Your task to perform on an android device: Empty the shopping cart on walmart.com. Add panasonic triple a to the cart on walmart.com Image 0: 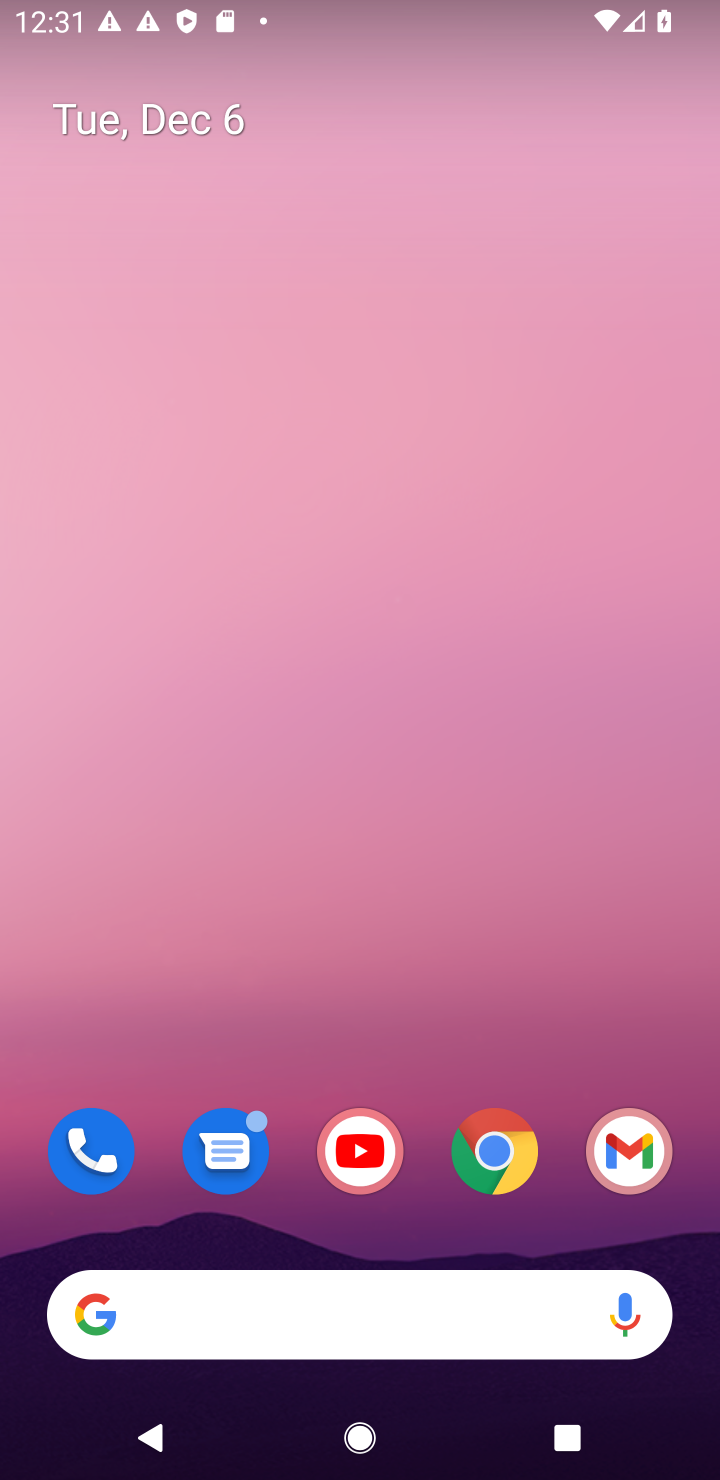
Step 0: click (483, 1159)
Your task to perform on an android device: Empty the shopping cart on walmart.com. Add panasonic triple a to the cart on walmart.com Image 1: 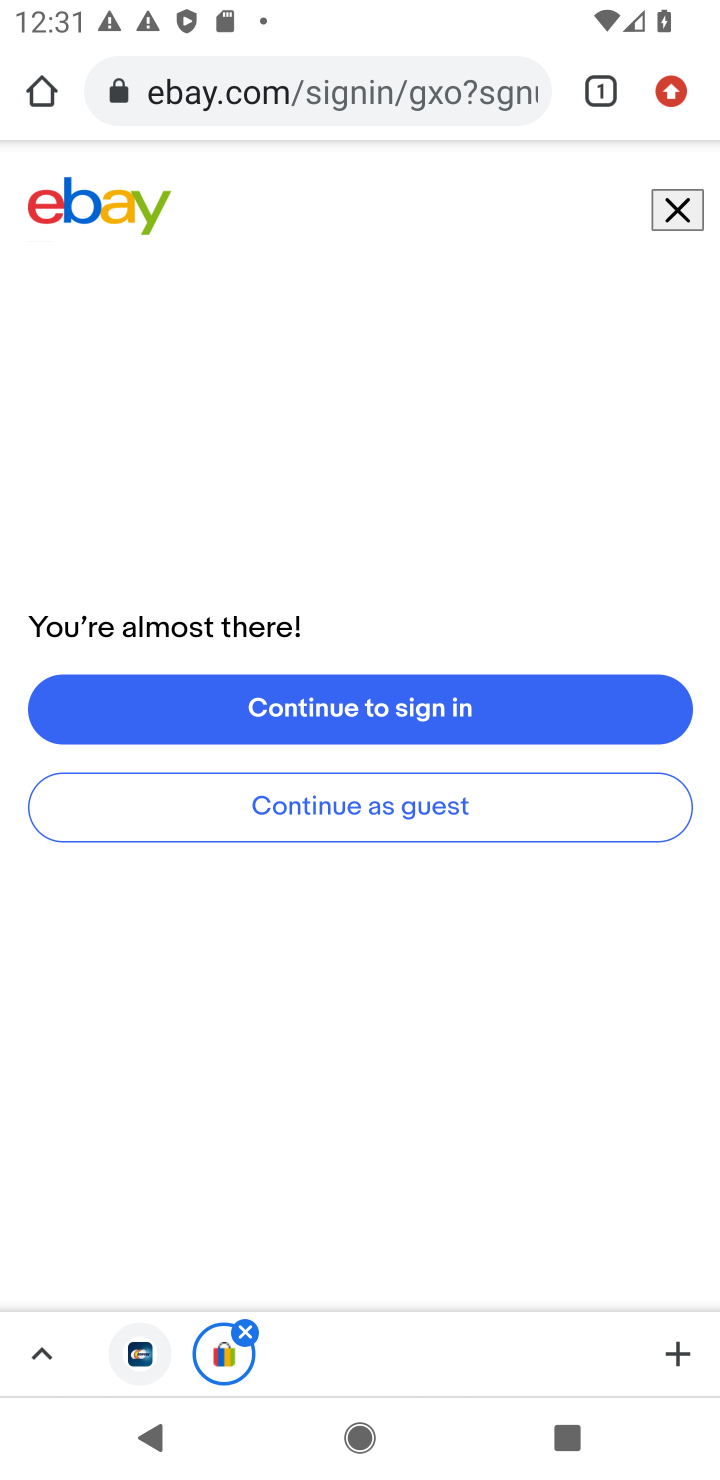
Step 1: click (254, 109)
Your task to perform on an android device: Empty the shopping cart on walmart.com. Add panasonic triple a to the cart on walmart.com Image 2: 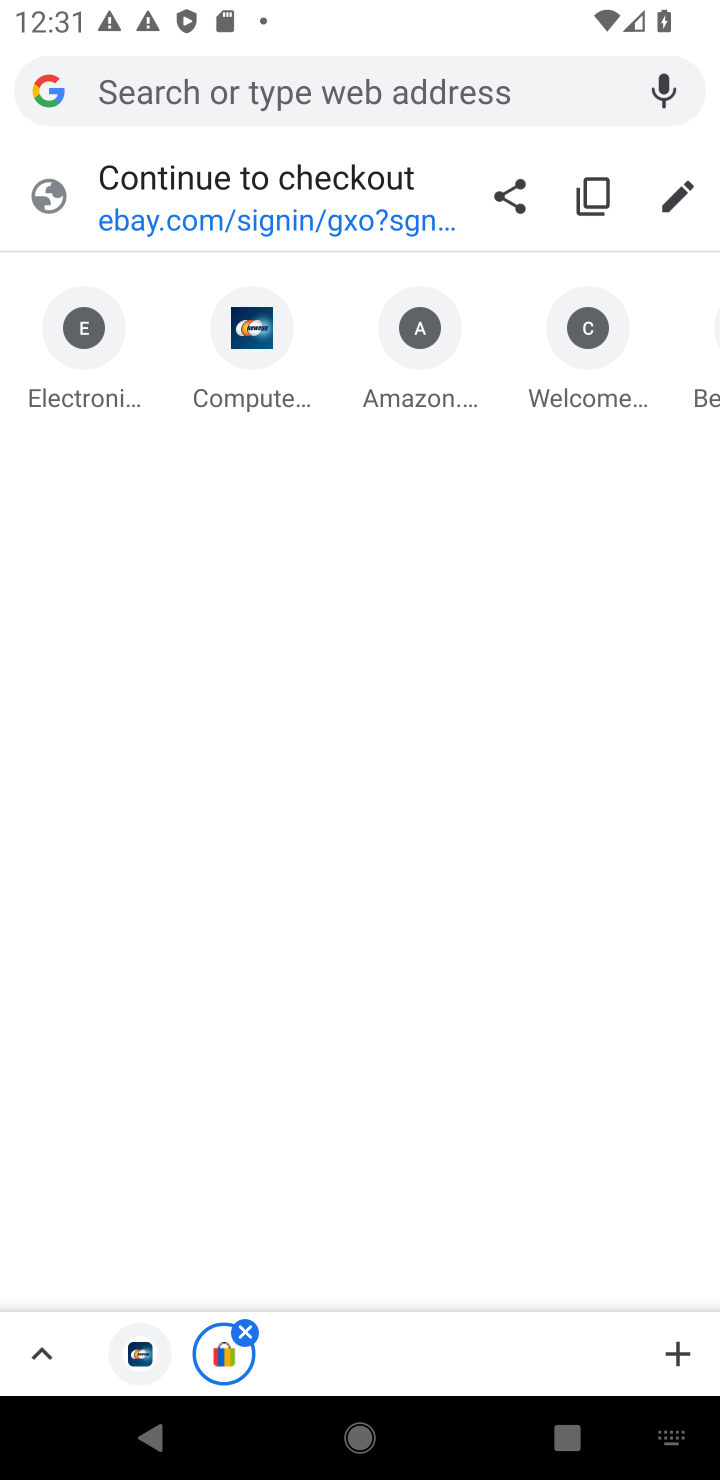
Step 2: type "walmart.com"
Your task to perform on an android device: Empty the shopping cart on walmart.com. Add panasonic triple a to the cart on walmart.com Image 3: 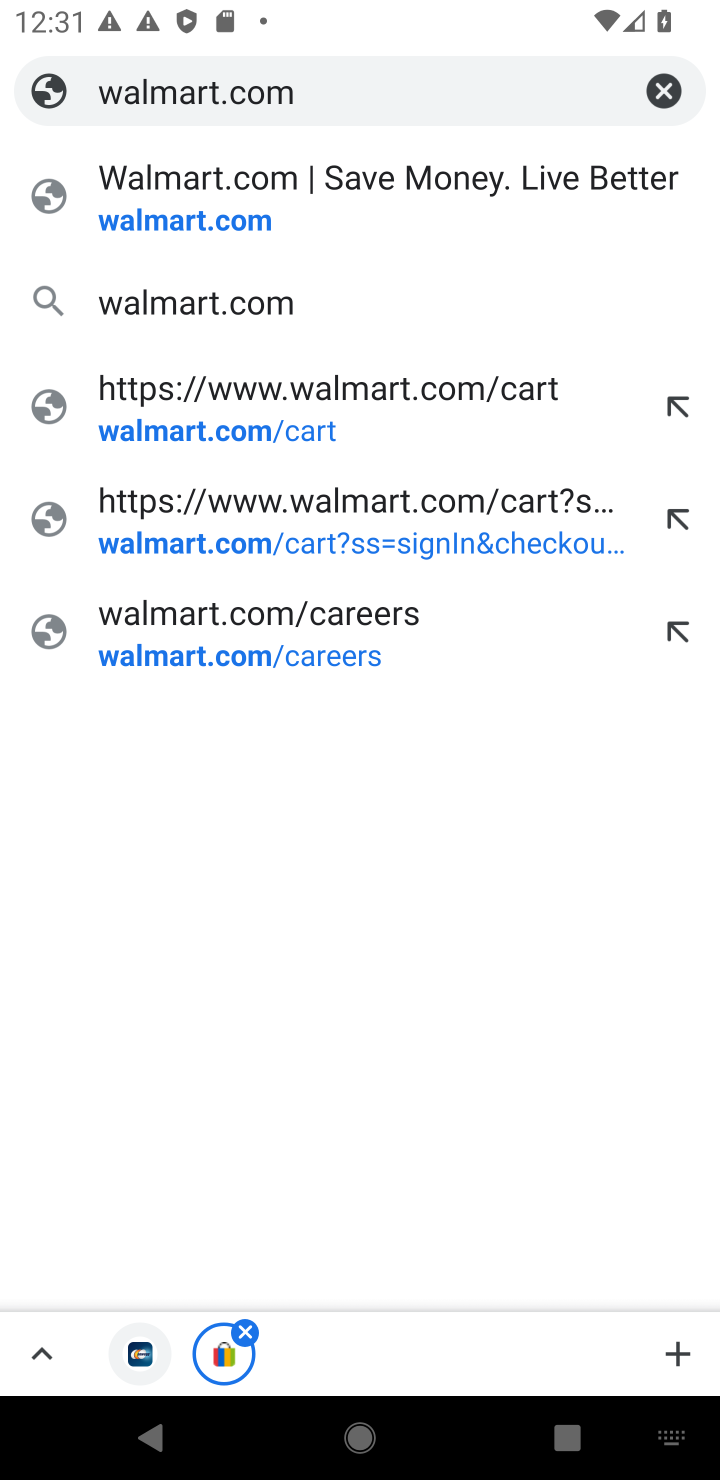
Step 3: click (194, 239)
Your task to perform on an android device: Empty the shopping cart on walmart.com. Add panasonic triple a to the cart on walmart.com Image 4: 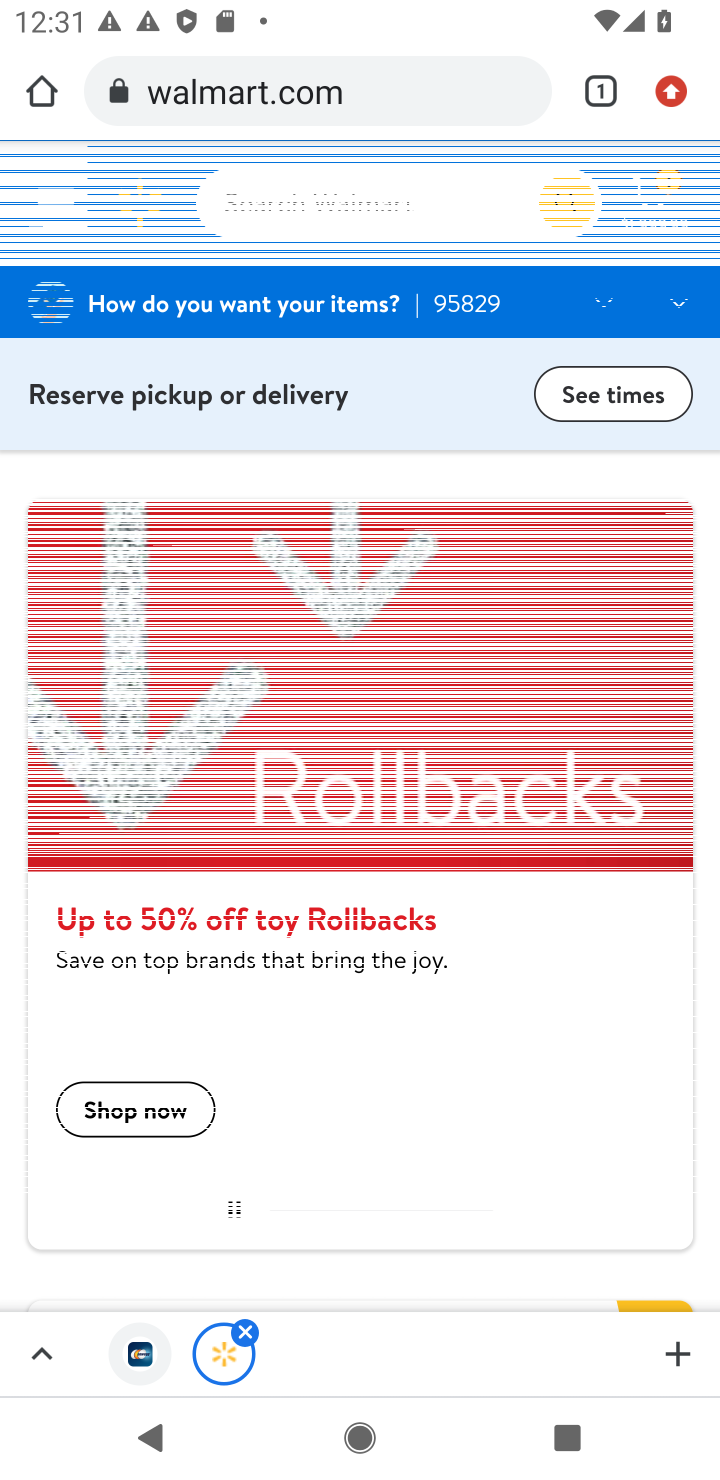
Step 4: click (650, 195)
Your task to perform on an android device: Empty the shopping cart on walmart.com. Add panasonic triple a to the cart on walmart.com Image 5: 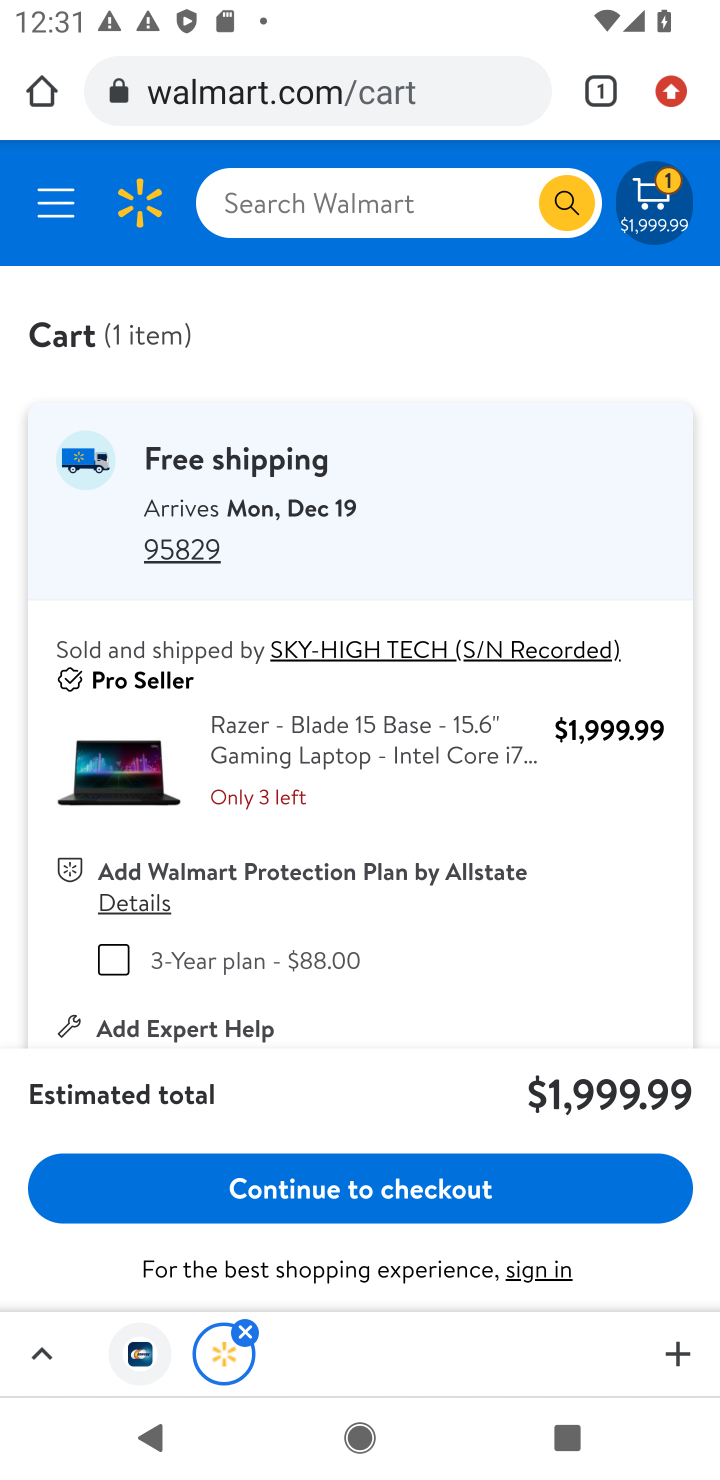
Step 5: drag from (342, 934) to (373, 426)
Your task to perform on an android device: Empty the shopping cart on walmart.com. Add panasonic triple a to the cart on walmart.com Image 6: 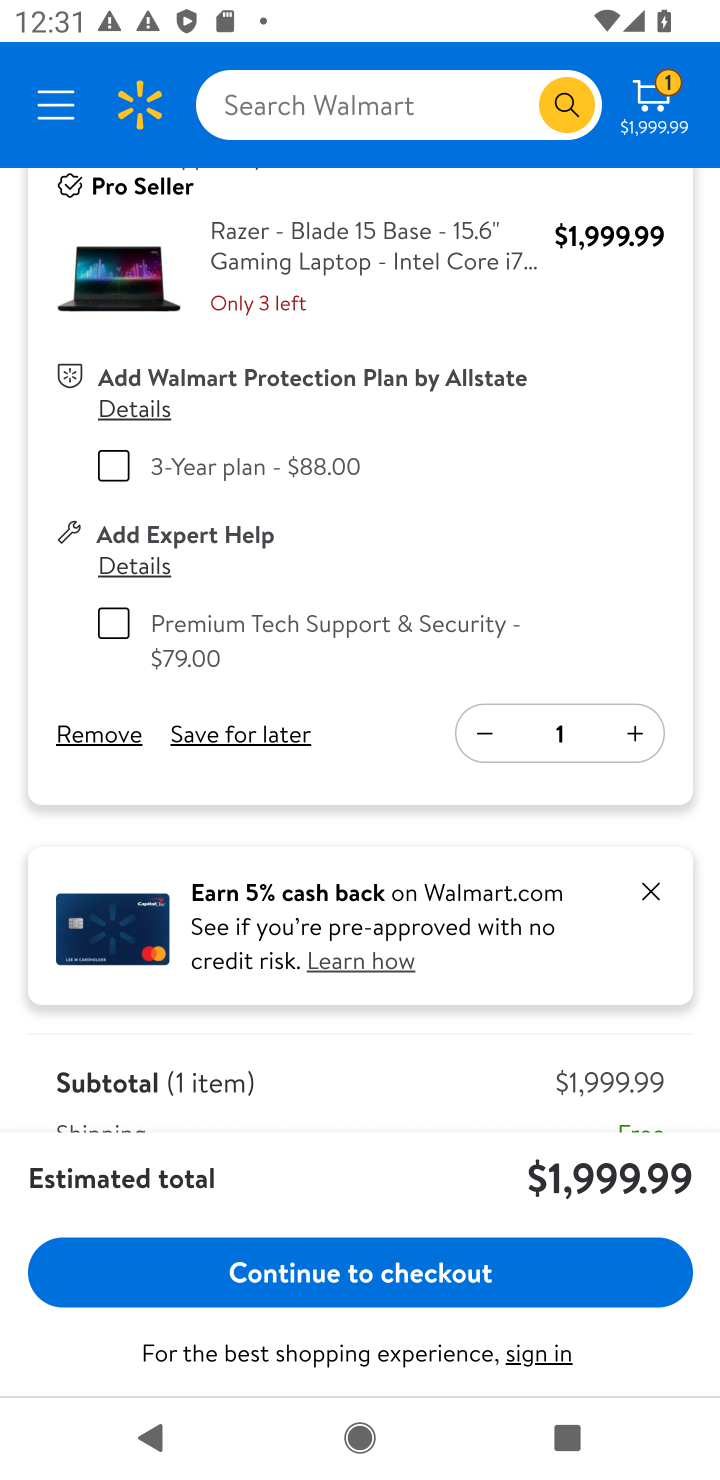
Step 6: click (99, 737)
Your task to perform on an android device: Empty the shopping cart on walmart.com. Add panasonic triple a to the cart on walmart.com Image 7: 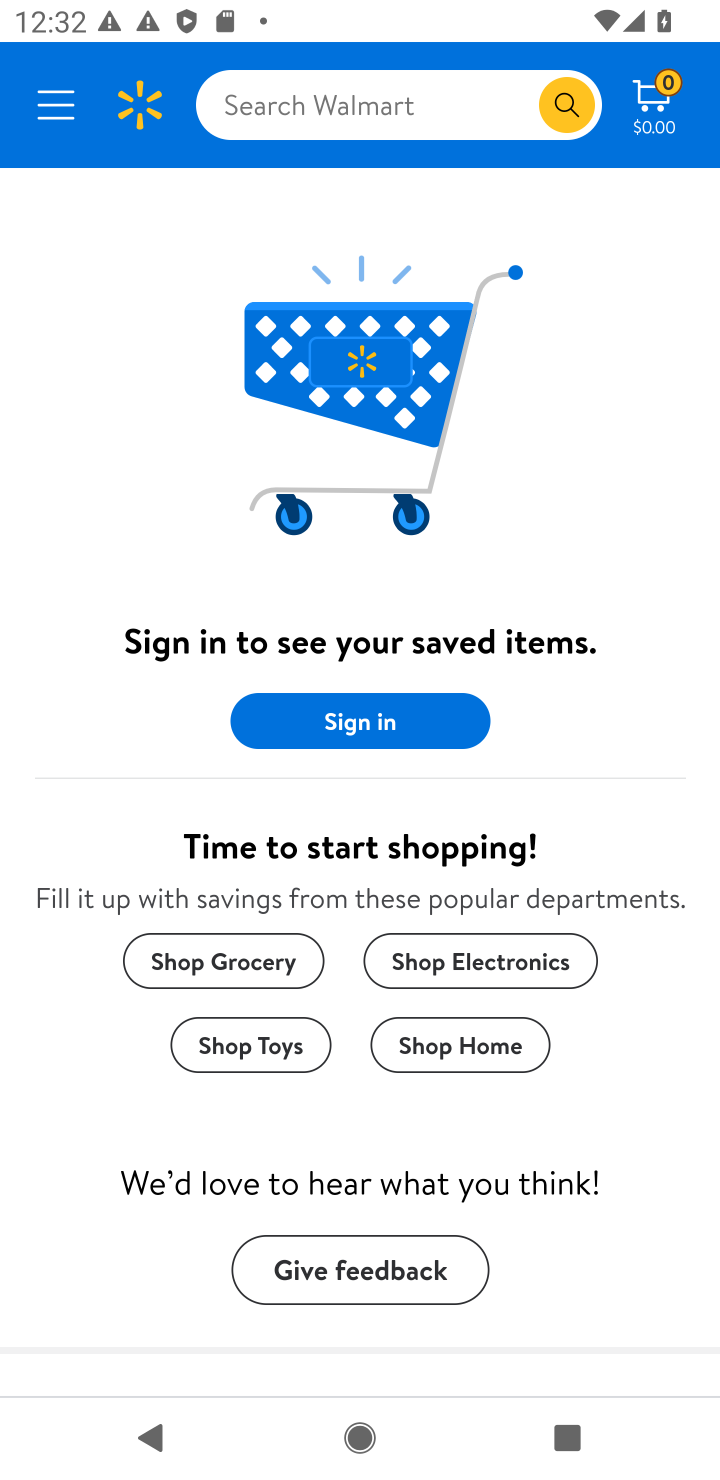
Step 7: click (345, 113)
Your task to perform on an android device: Empty the shopping cart on walmart.com. Add panasonic triple a to the cart on walmart.com Image 8: 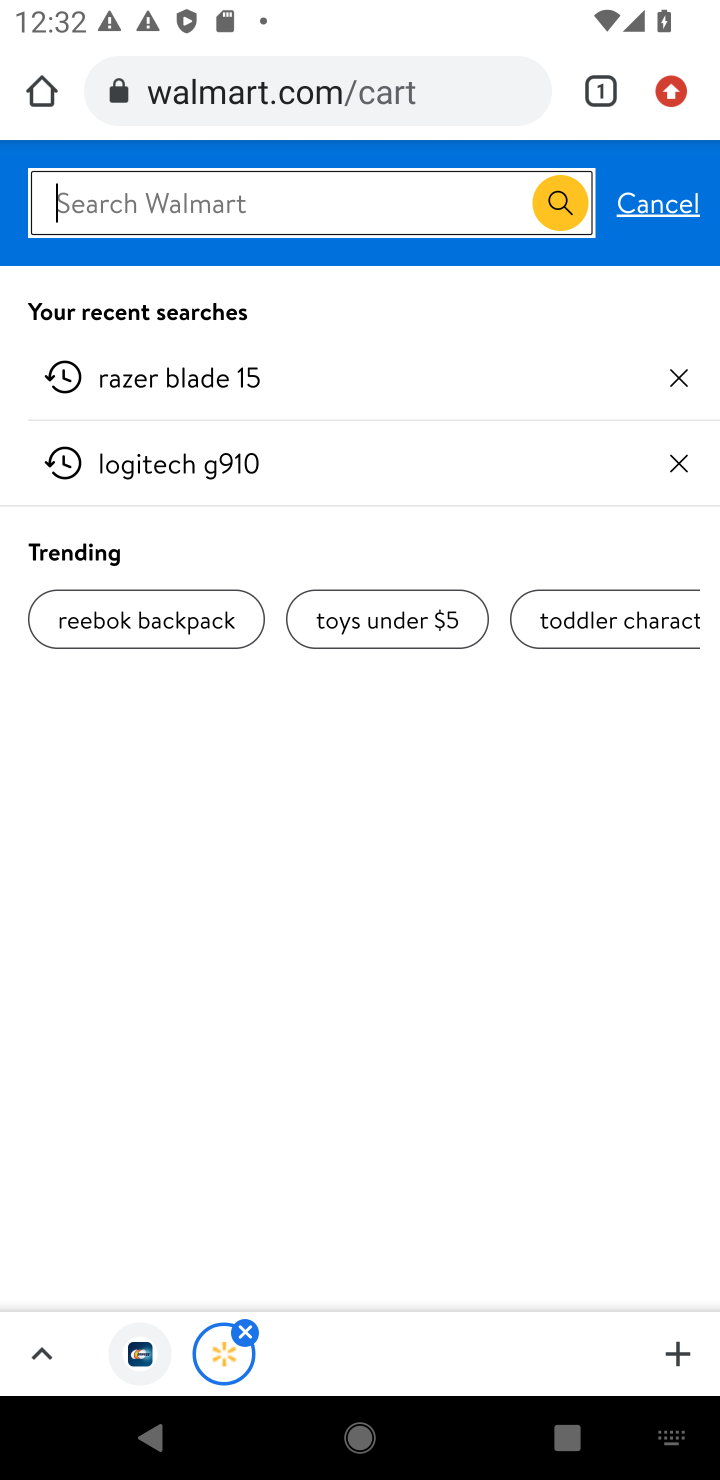
Step 8: type " panasonic triple a"
Your task to perform on an android device: Empty the shopping cart on walmart.com. Add panasonic triple a to the cart on walmart.com Image 9: 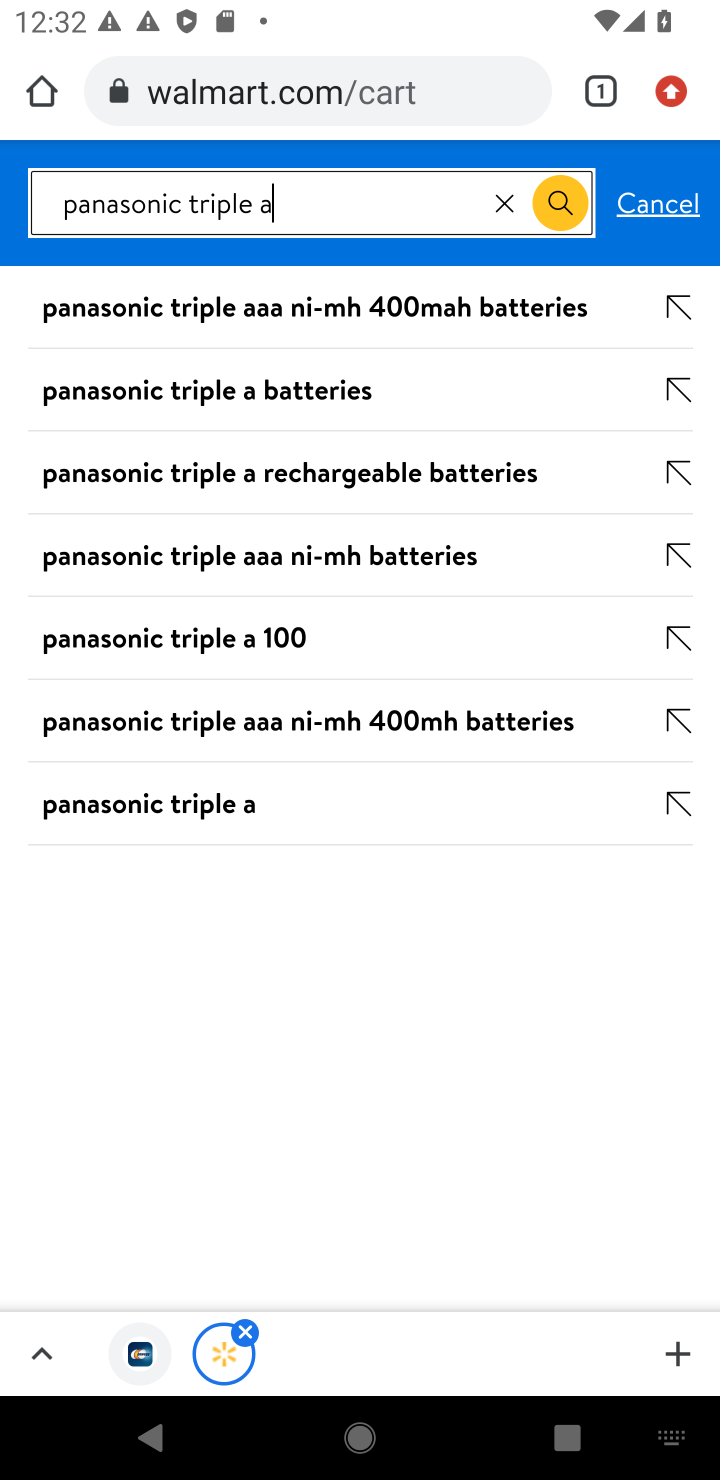
Step 9: click (246, 399)
Your task to perform on an android device: Empty the shopping cart on walmart.com. Add panasonic triple a to the cart on walmart.com Image 10: 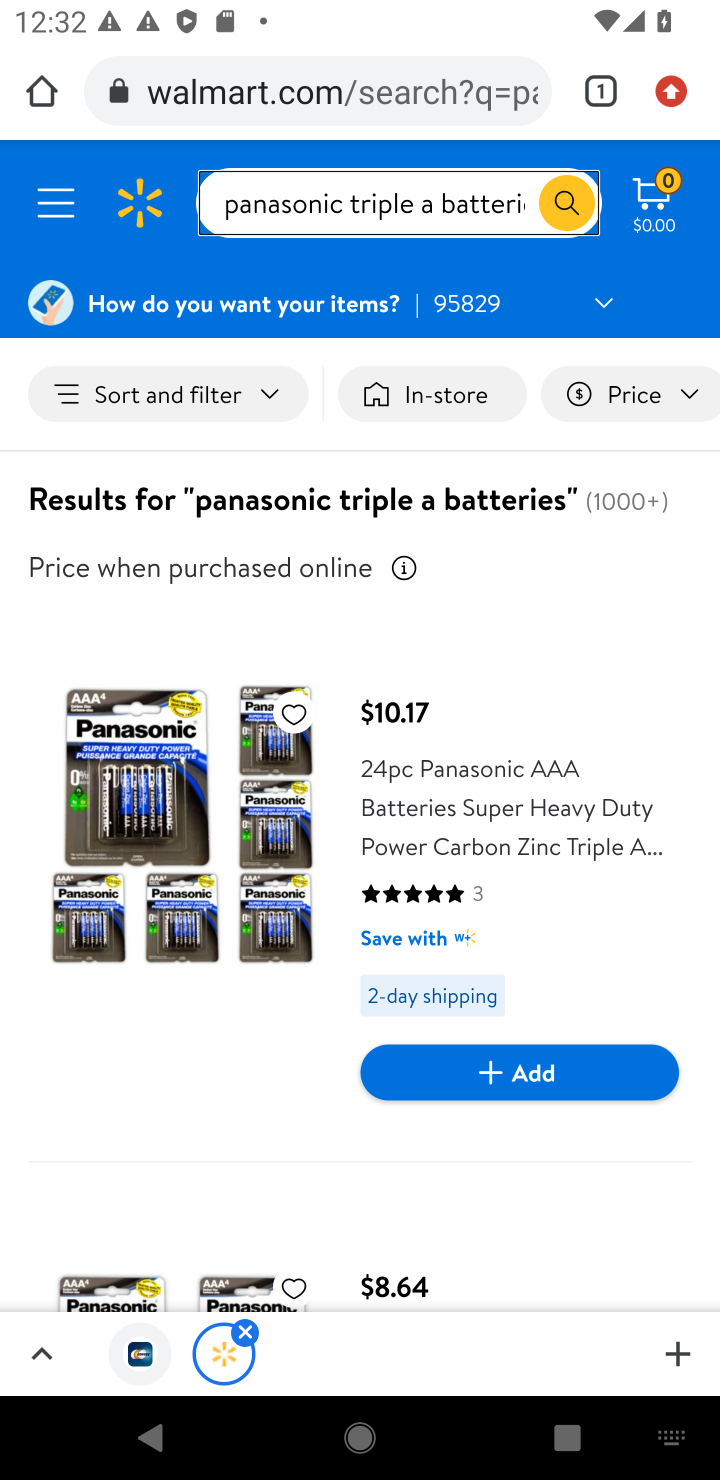
Step 10: click (658, 201)
Your task to perform on an android device: Empty the shopping cart on walmart.com. Add panasonic triple a to the cart on walmart.com Image 11: 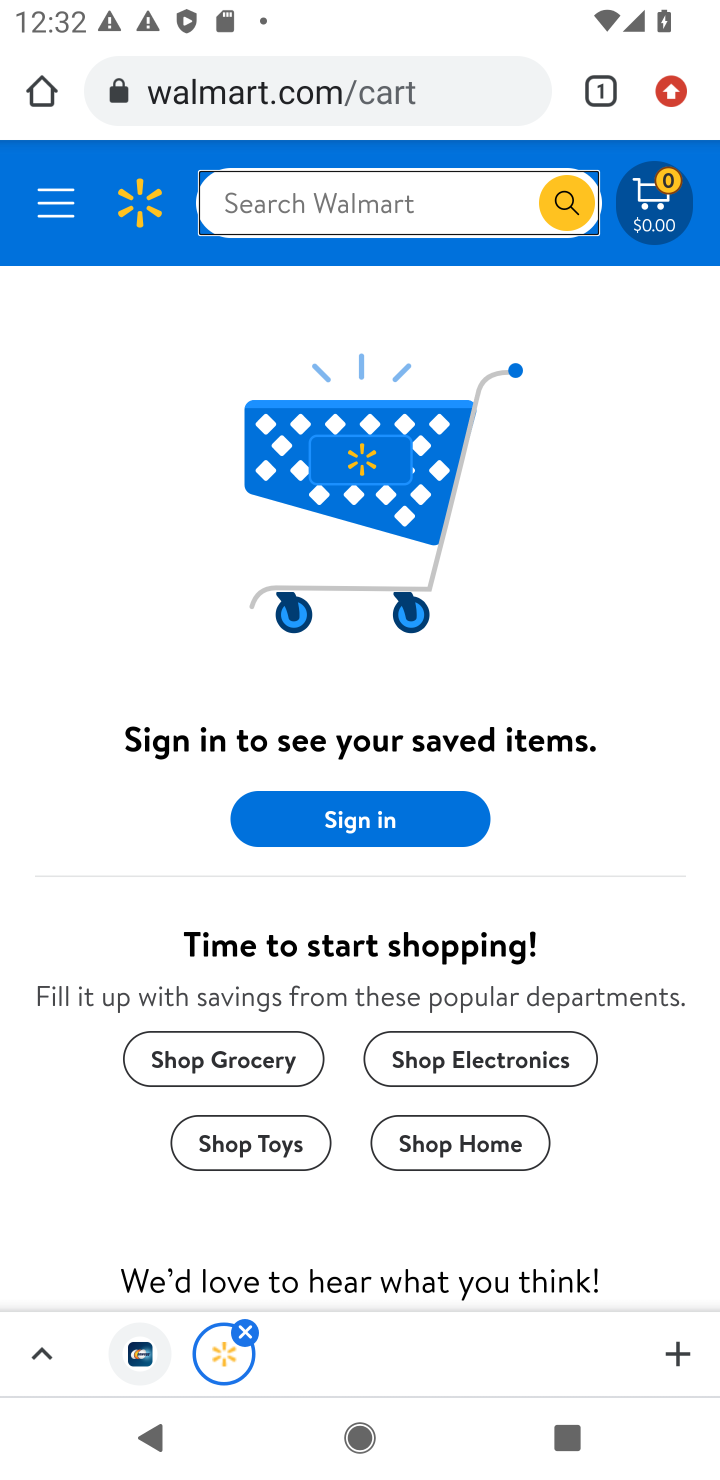
Step 11: click (378, 202)
Your task to perform on an android device: Empty the shopping cart on walmart.com. Add panasonic triple a to the cart on walmart.com Image 12: 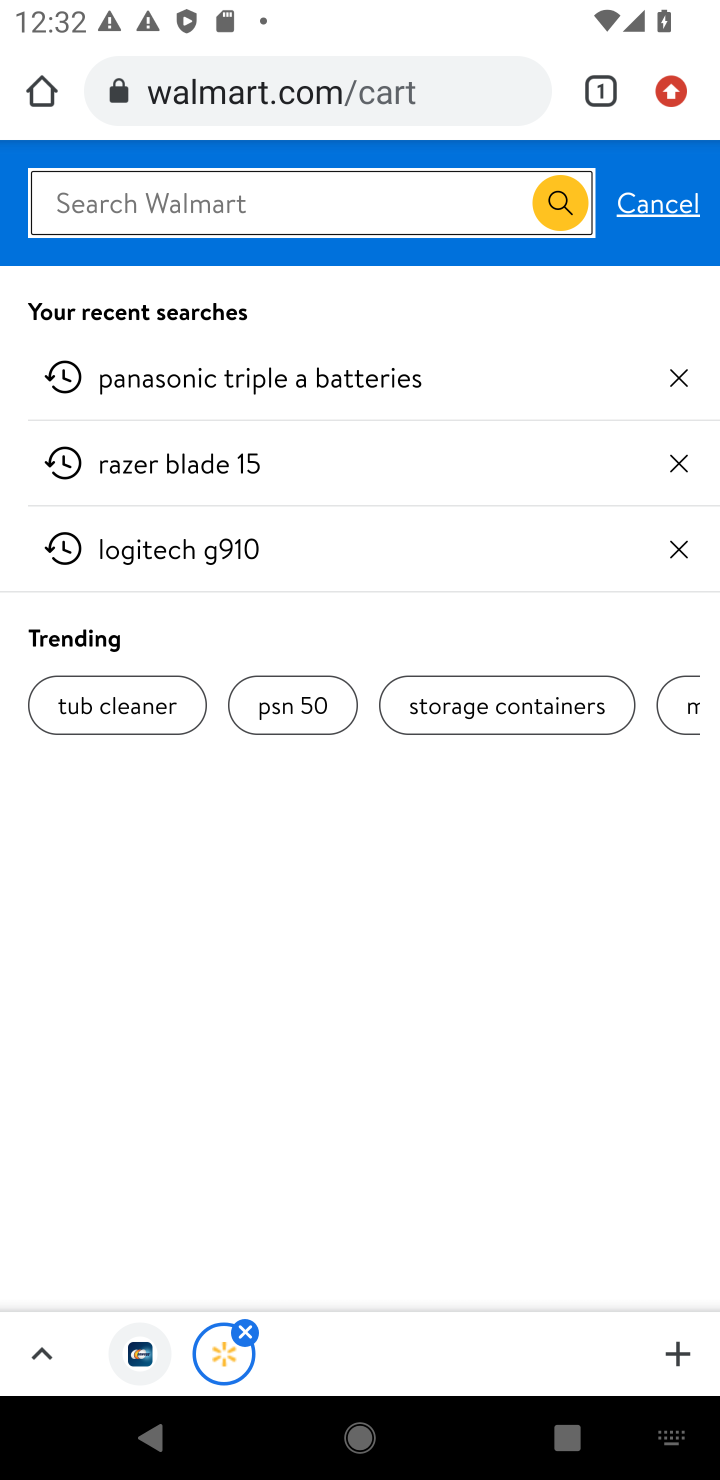
Step 12: type " panasonic triple a"
Your task to perform on an android device: Empty the shopping cart on walmart.com. Add panasonic triple a to the cart on walmart.com Image 13: 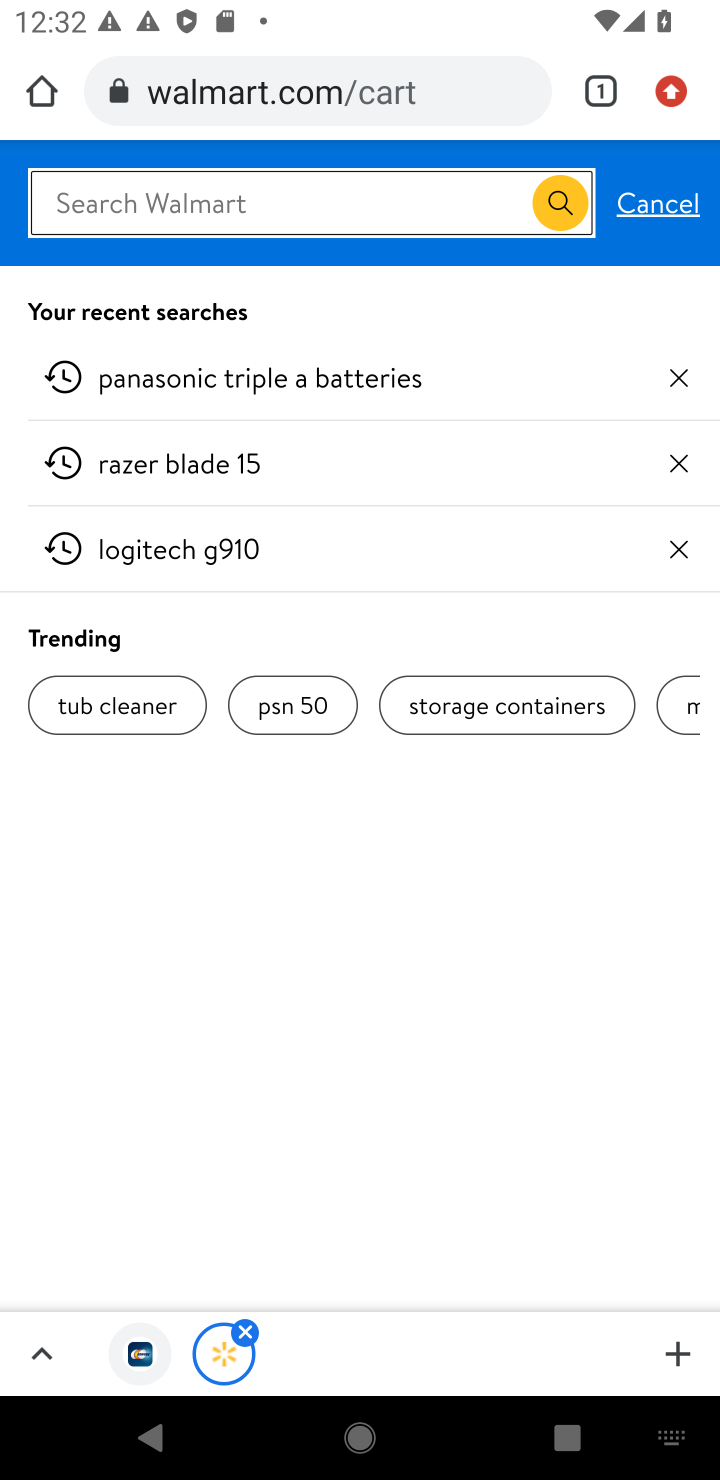
Step 13: click (196, 379)
Your task to perform on an android device: Empty the shopping cart on walmart.com. Add panasonic triple a to the cart on walmart.com Image 14: 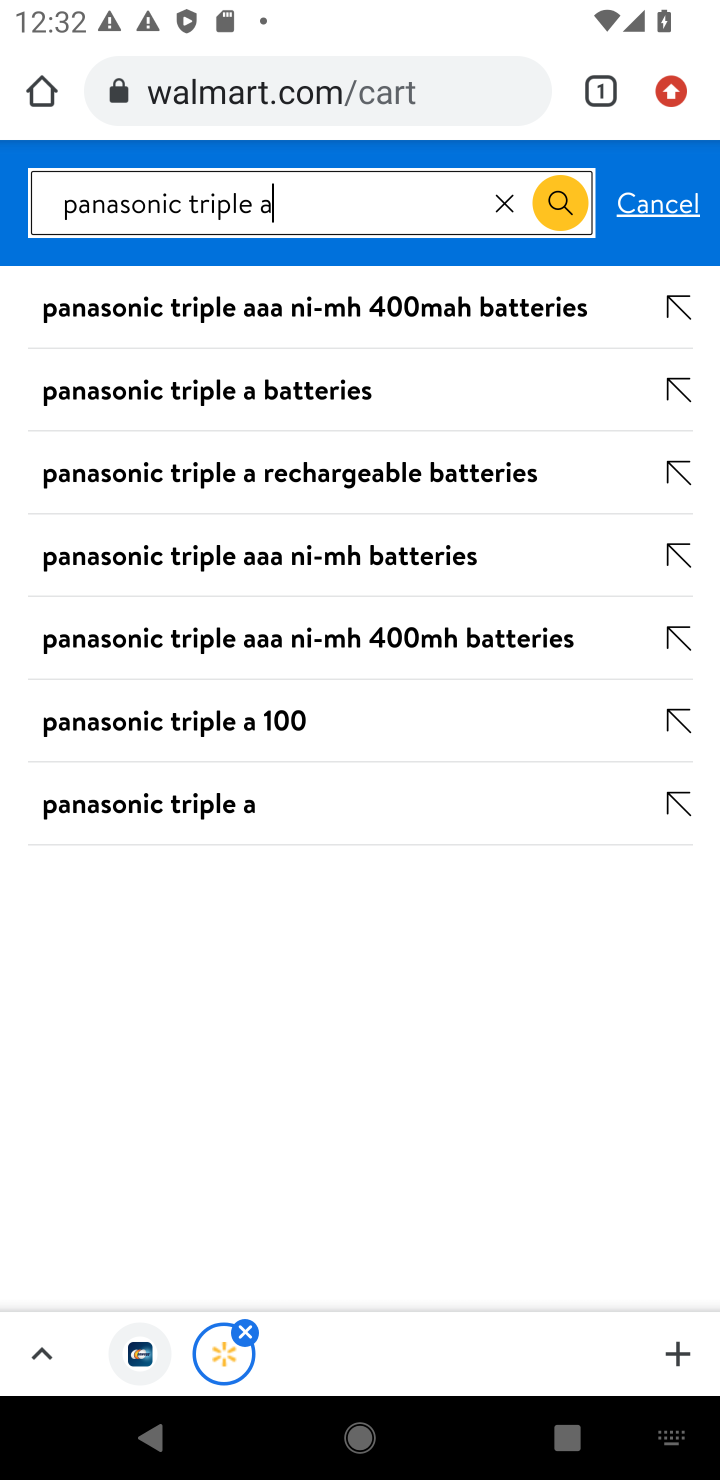
Step 14: click (247, 396)
Your task to perform on an android device: Empty the shopping cart on walmart.com. Add panasonic triple a to the cart on walmart.com Image 15: 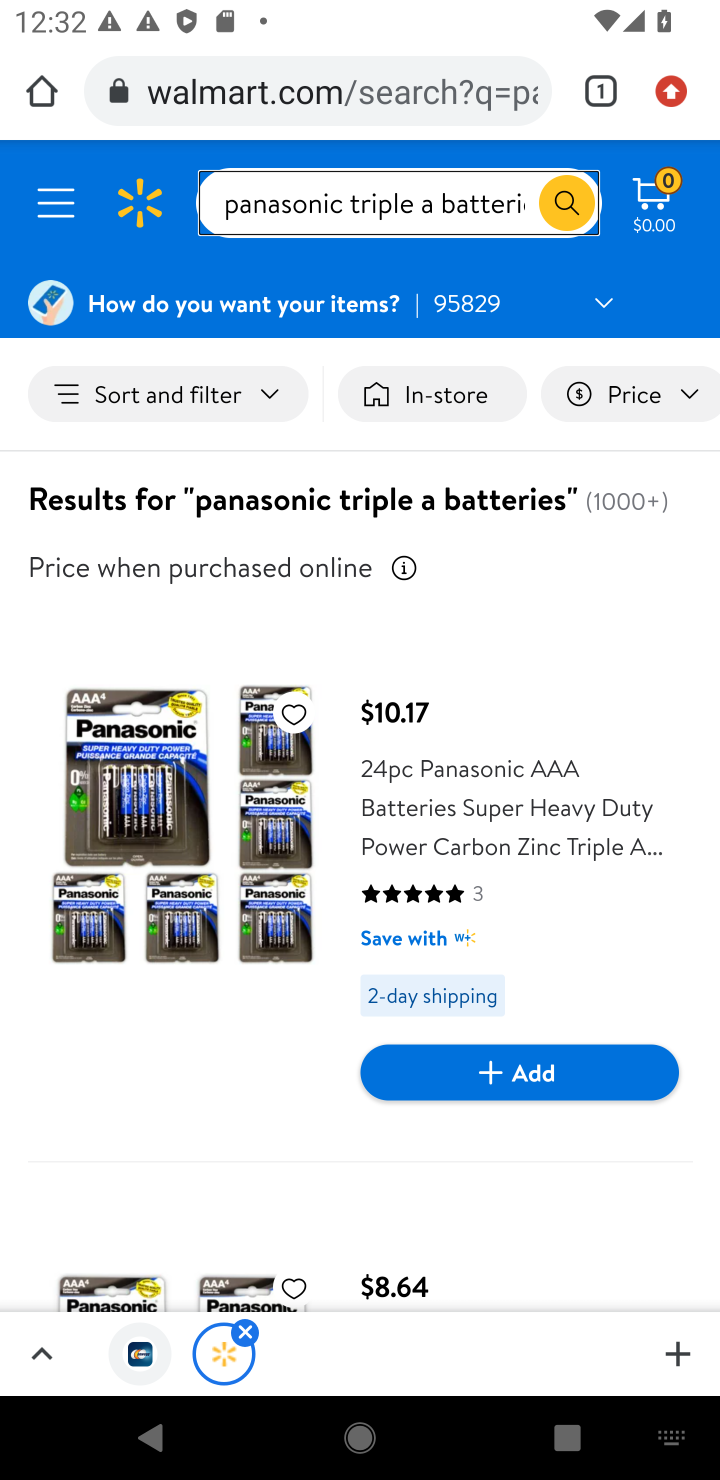
Step 15: click (495, 1068)
Your task to perform on an android device: Empty the shopping cart on walmart.com. Add panasonic triple a to the cart on walmart.com Image 16: 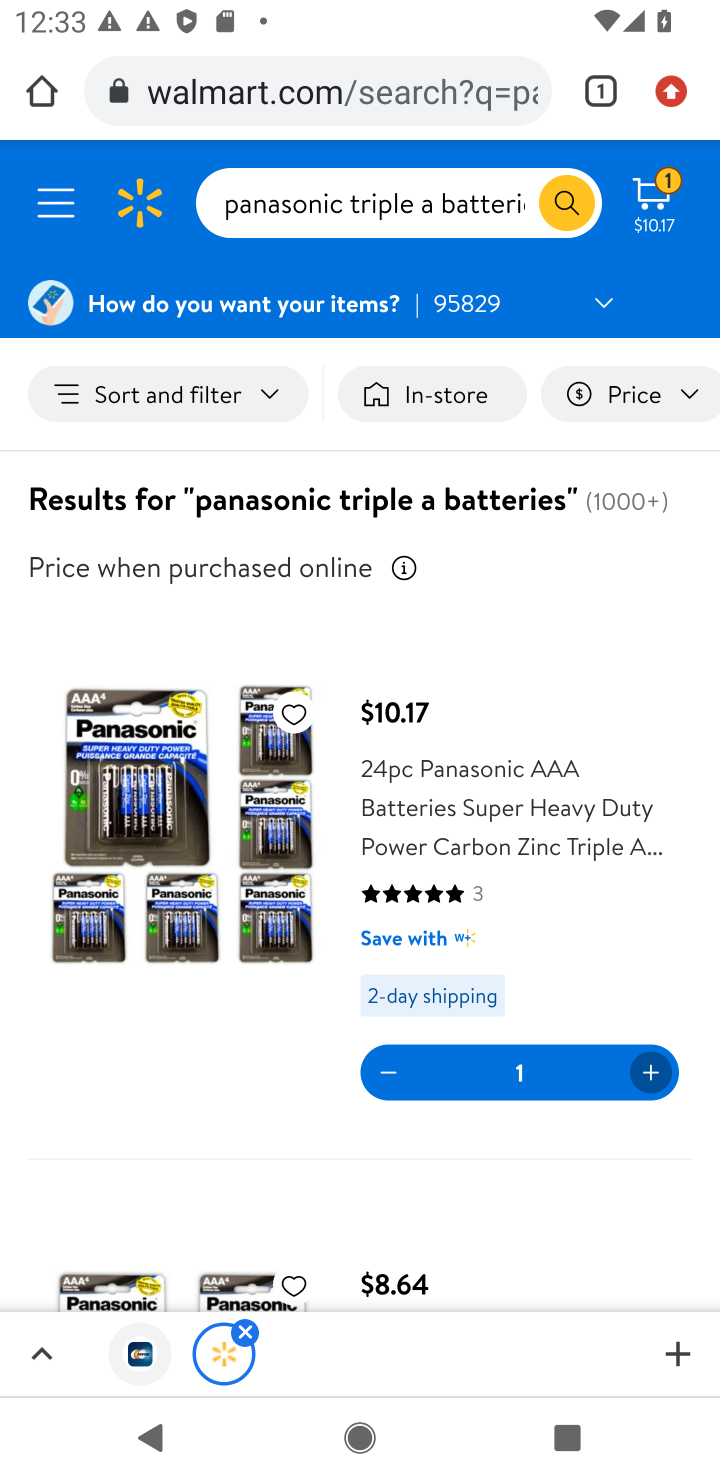
Step 16: task complete